Your task to perform on an android device: Go to calendar. Show me events next week Image 0: 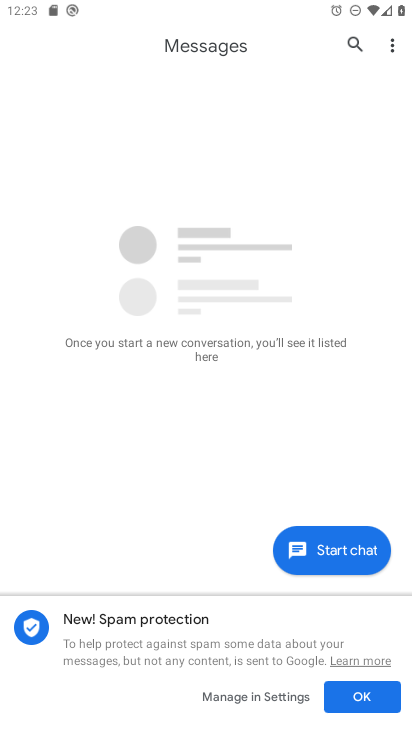
Step 0: press home button
Your task to perform on an android device: Go to calendar. Show me events next week Image 1: 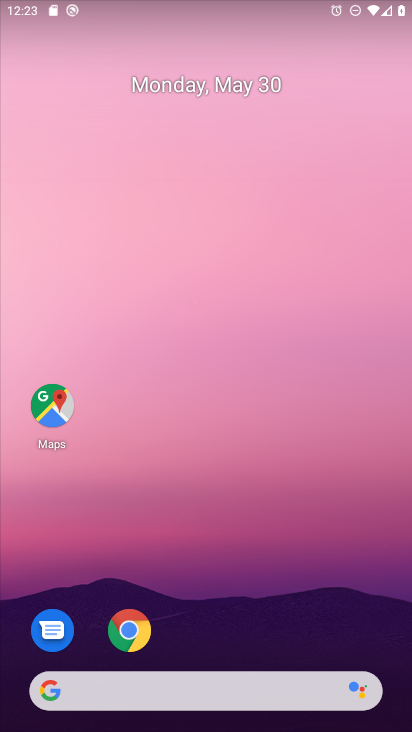
Step 1: drag from (123, 693) to (273, 168)
Your task to perform on an android device: Go to calendar. Show me events next week Image 2: 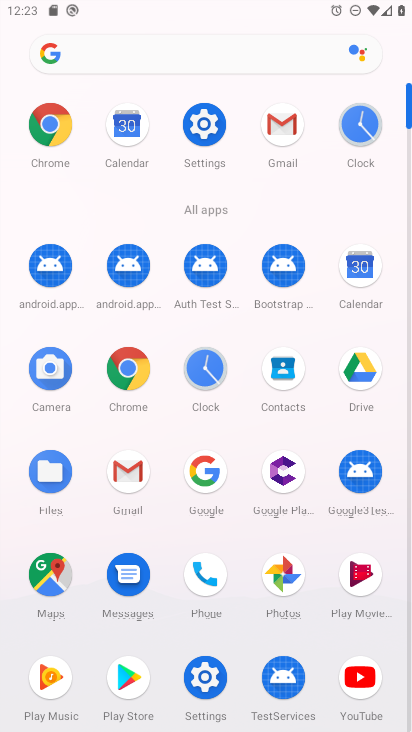
Step 2: click (363, 267)
Your task to perform on an android device: Go to calendar. Show me events next week Image 3: 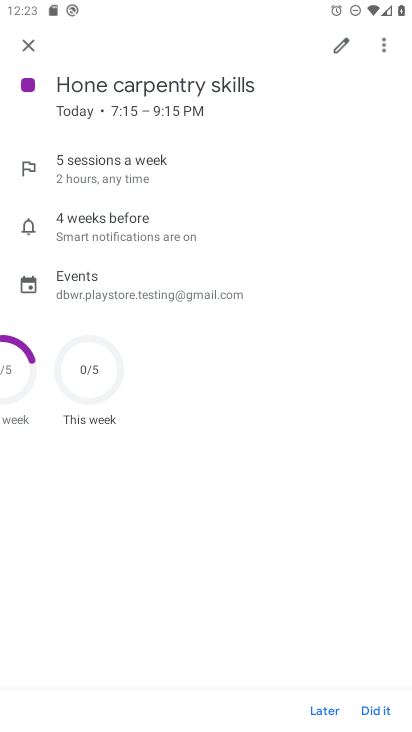
Step 3: click (26, 46)
Your task to perform on an android device: Go to calendar. Show me events next week Image 4: 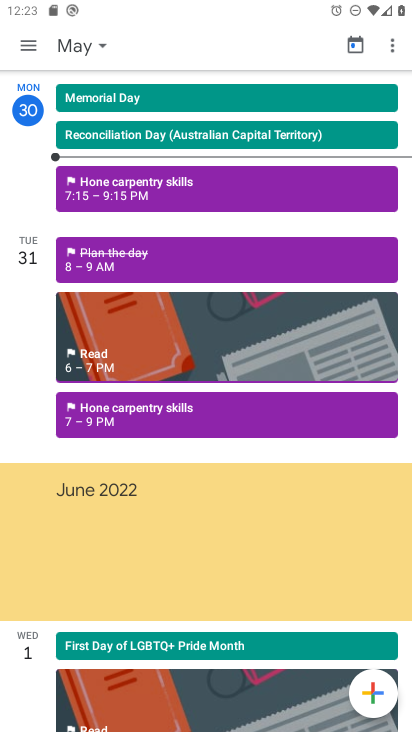
Step 4: click (82, 39)
Your task to perform on an android device: Go to calendar. Show me events next week Image 5: 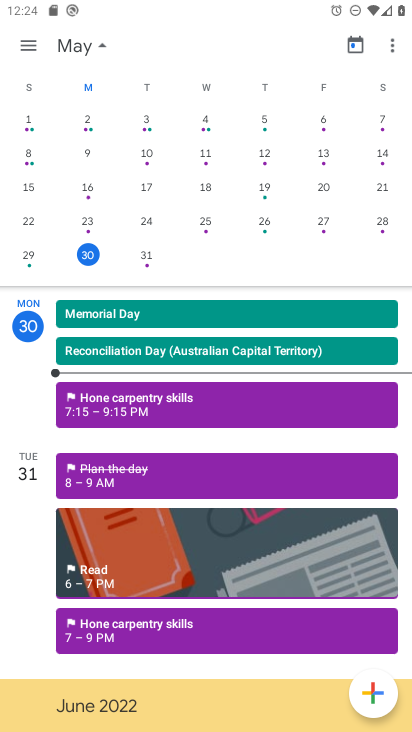
Step 5: drag from (262, 202) to (0, 238)
Your task to perform on an android device: Go to calendar. Show me events next week Image 6: 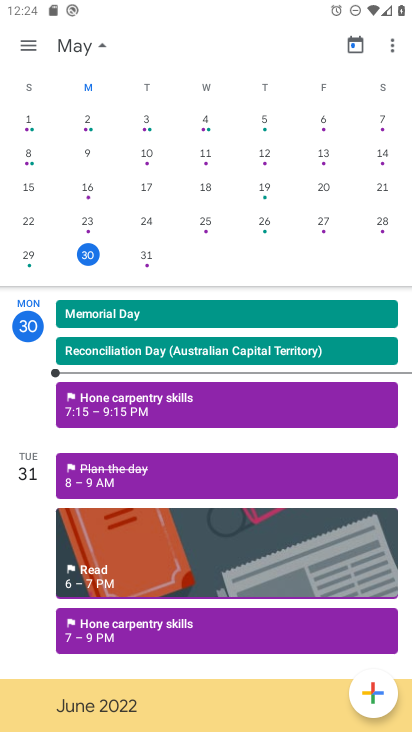
Step 6: drag from (375, 162) to (1, 211)
Your task to perform on an android device: Go to calendar. Show me events next week Image 7: 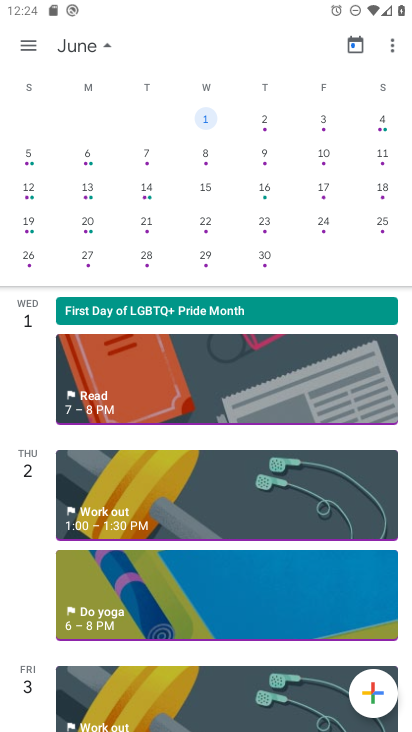
Step 7: click (207, 117)
Your task to perform on an android device: Go to calendar. Show me events next week Image 8: 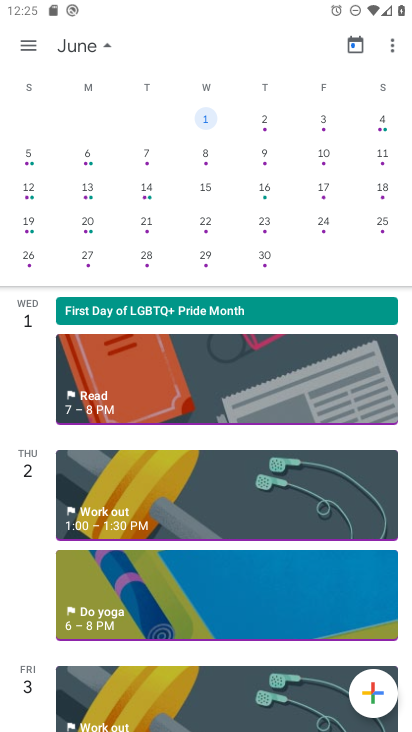
Step 8: click (23, 43)
Your task to perform on an android device: Go to calendar. Show me events next week Image 9: 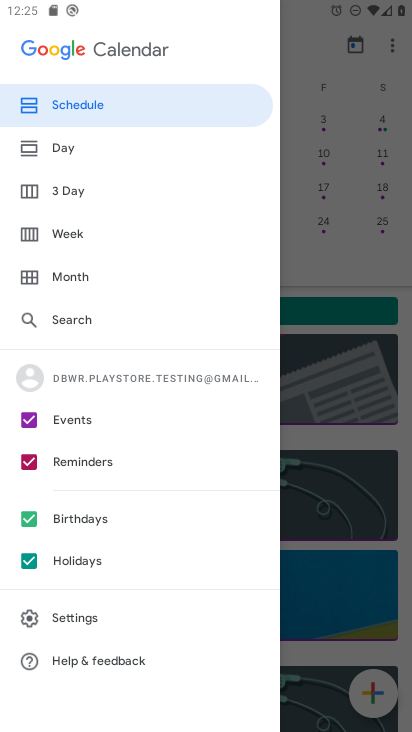
Step 9: click (79, 233)
Your task to perform on an android device: Go to calendar. Show me events next week Image 10: 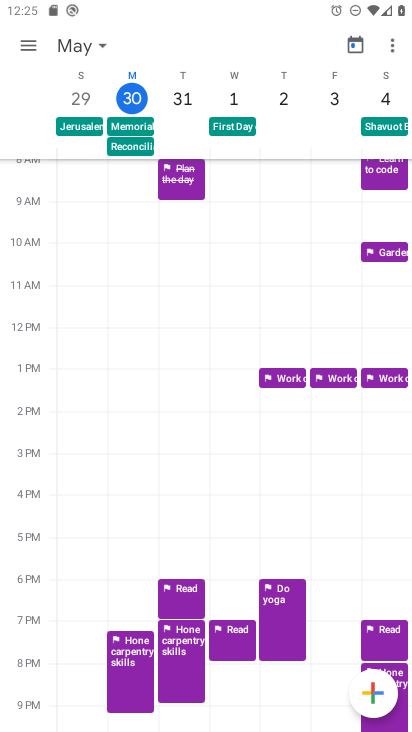
Step 10: click (24, 49)
Your task to perform on an android device: Go to calendar. Show me events next week Image 11: 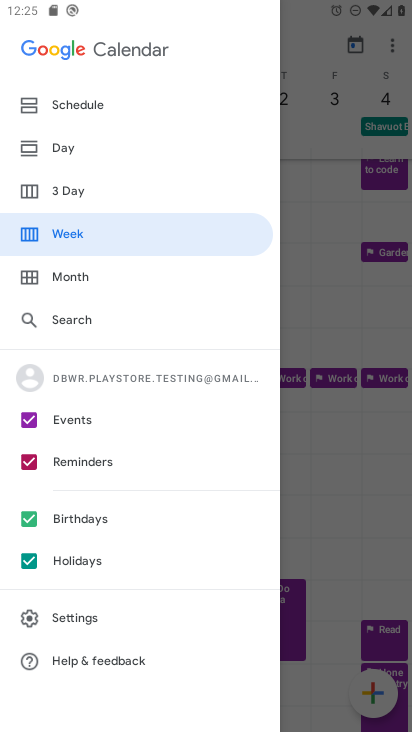
Step 11: click (79, 103)
Your task to perform on an android device: Go to calendar. Show me events next week Image 12: 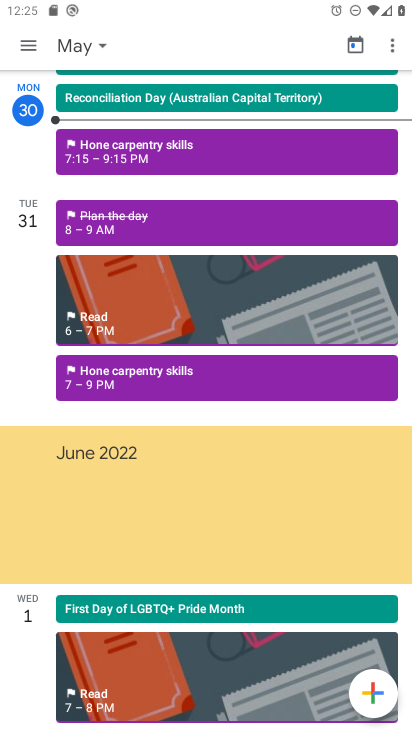
Step 12: task complete